Your task to perform on an android device: Open battery settings Image 0: 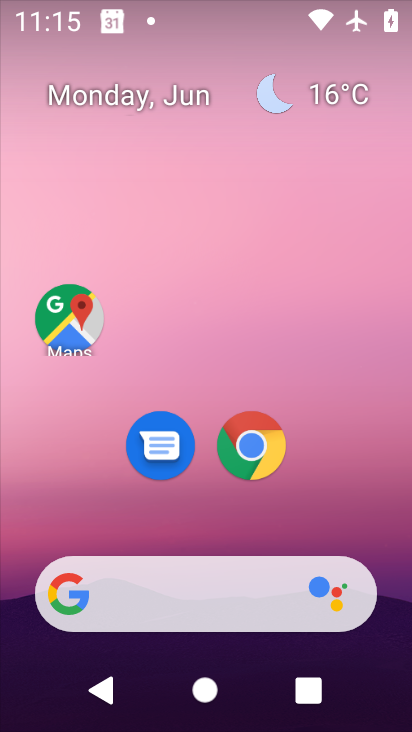
Step 0: press home button
Your task to perform on an android device: Open battery settings Image 1: 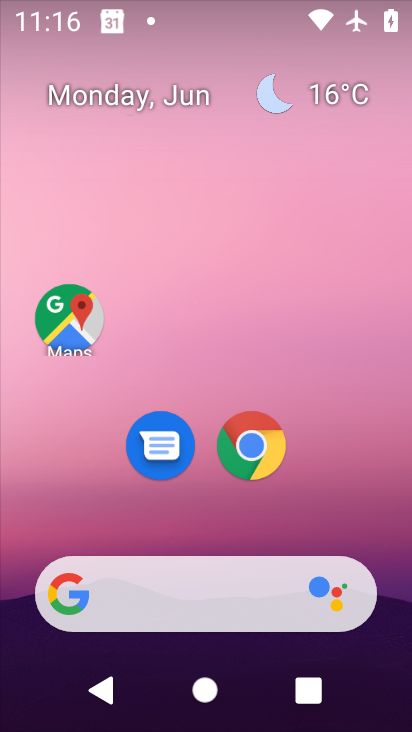
Step 1: drag from (224, 532) to (271, 9)
Your task to perform on an android device: Open battery settings Image 2: 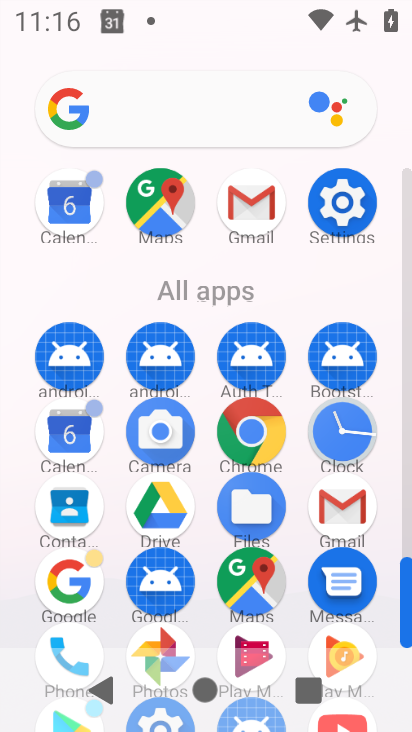
Step 2: click (345, 205)
Your task to perform on an android device: Open battery settings Image 3: 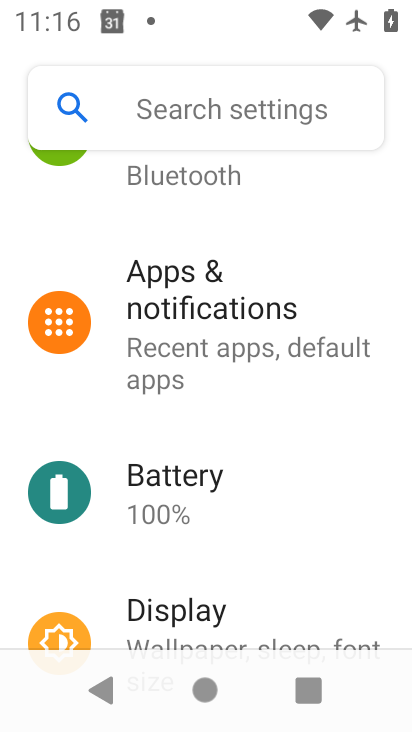
Step 3: click (162, 495)
Your task to perform on an android device: Open battery settings Image 4: 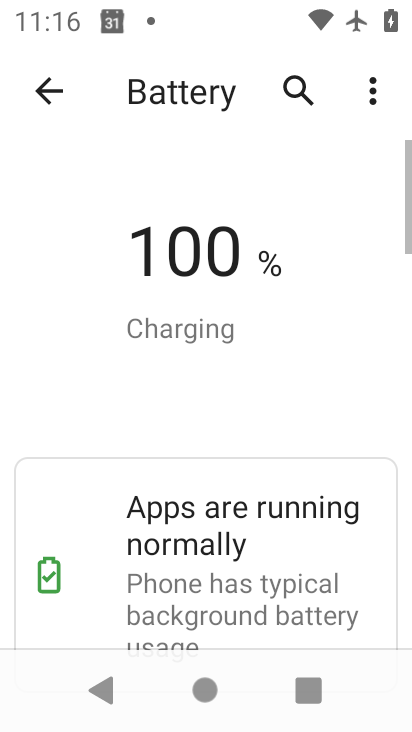
Step 4: task complete